Your task to perform on an android device: open app "PlayWell" (install if not already installed), go to login, and select forgot password Image 0: 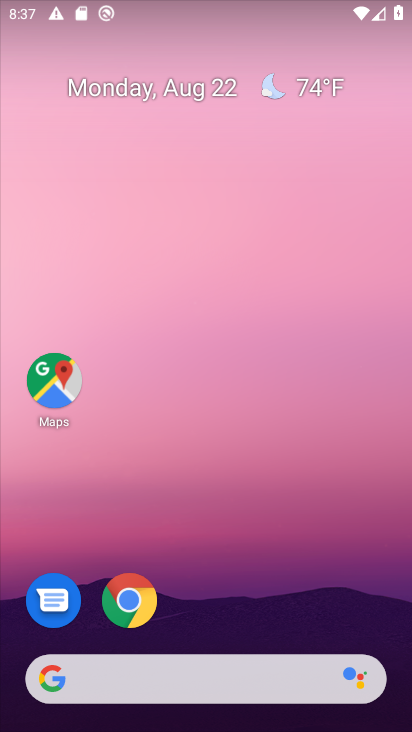
Step 0: drag from (235, 593) to (193, 153)
Your task to perform on an android device: open app "PlayWell" (install if not already installed), go to login, and select forgot password Image 1: 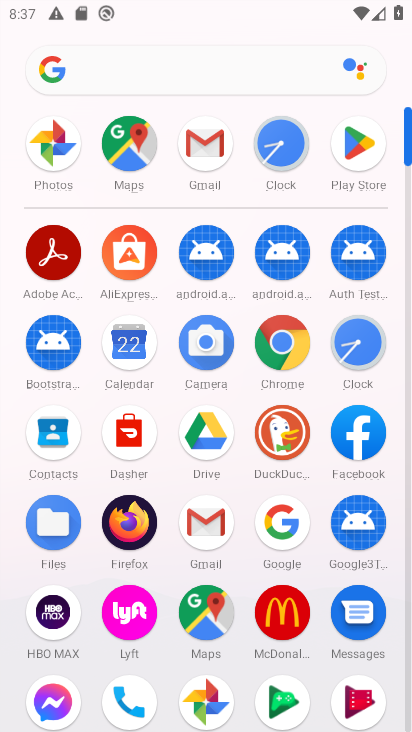
Step 1: click (349, 137)
Your task to perform on an android device: open app "PlayWell" (install if not already installed), go to login, and select forgot password Image 2: 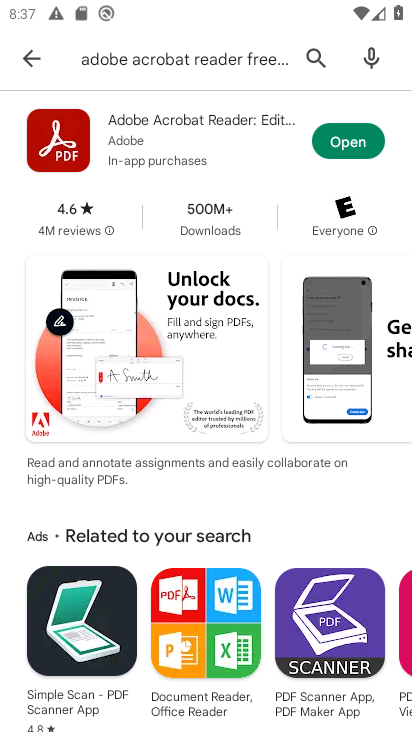
Step 2: click (309, 53)
Your task to perform on an android device: open app "PlayWell" (install if not already installed), go to login, and select forgot password Image 3: 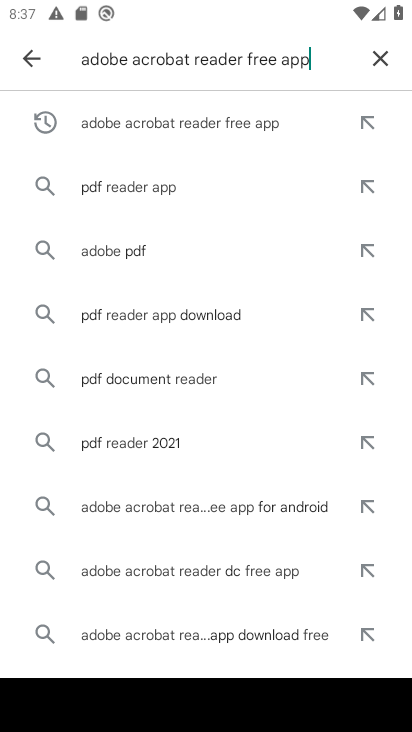
Step 3: click (385, 61)
Your task to perform on an android device: open app "PlayWell" (install if not already installed), go to login, and select forgot password Image 4: 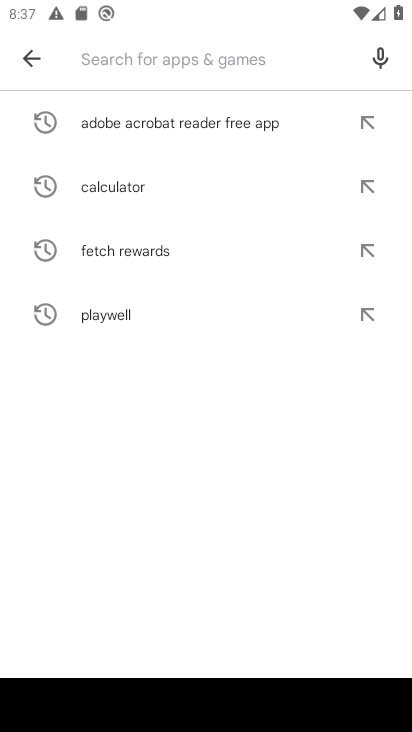
Step 4: type "PlayWell"
Your task to perform on an android device: open app "PlayWell" (install if not already installed), go to login, and select forgot password Image 5: 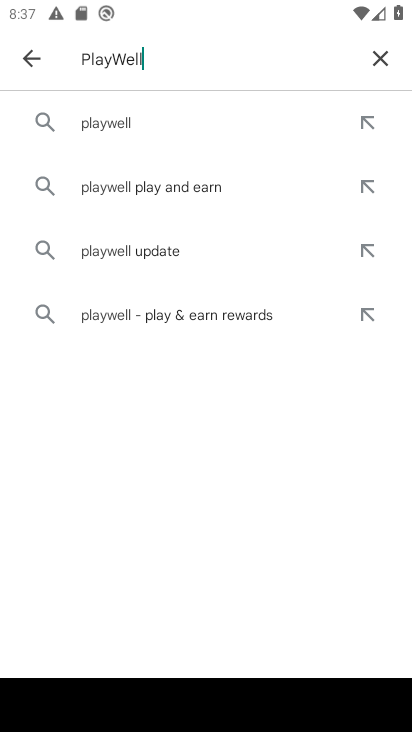
Step 5: type ""
Your task to perform on an android device: open app "PlayWell" (install if not already installed), go to login, and select forgot password Image 6: 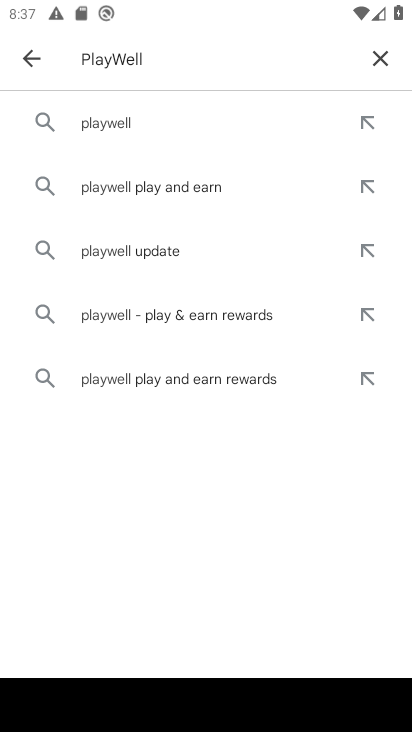
Step 6: click (138, 127)
Your task to perform on an android device: open app "PlayWell" (install if not already installed), go to login, and select forgot password Image 7: 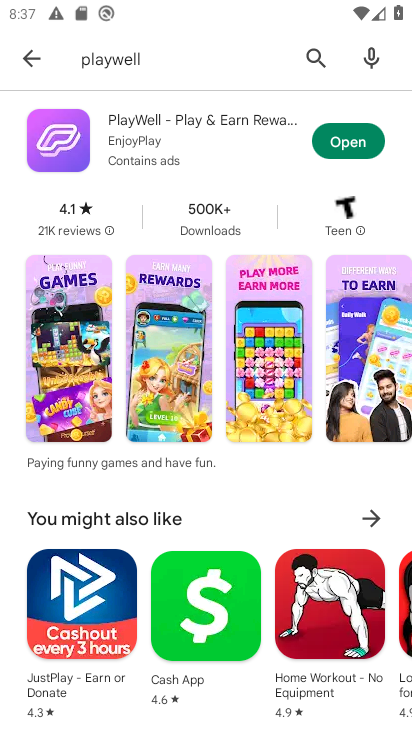
Step 7: click (361, 143)
Your task to perform on an android device: open app "PlayWell" (install if not already installed), go to login, and select forgot password Image 8: 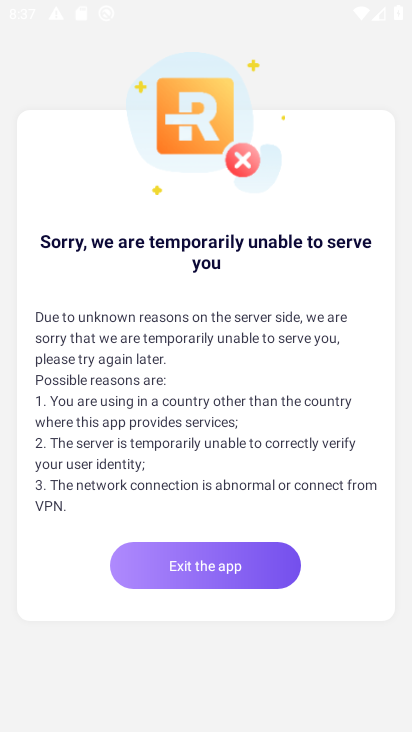
Step 8: task complete